Your task to perform on an android device: turn notification dots off Image 0: 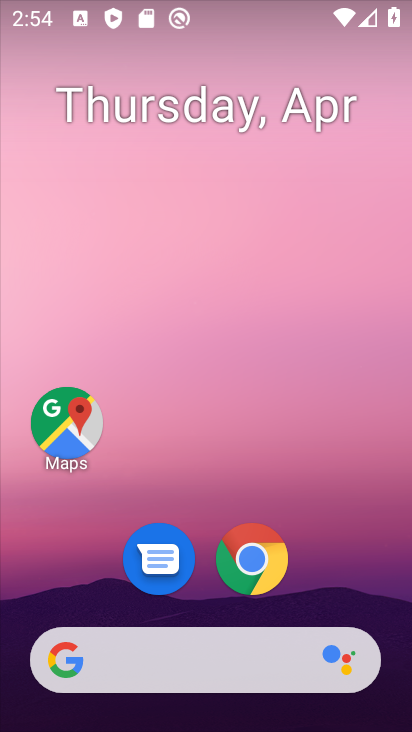
Step 0: drag from (266, 618) to (287, 130)
Your task to perform on an android device: turn notification dots off Image 1: 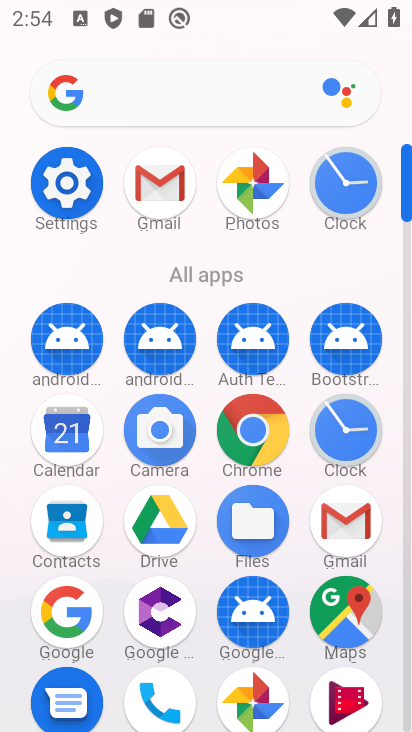
Step 1: click (69, 190)
Your task to perform on an android device: turn notification dots off Image 2: 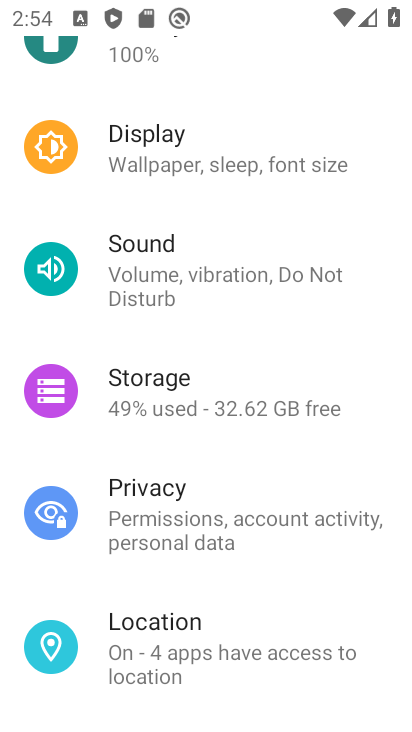
Step 2: drag from (261, 222) to (262, 653)
Your task to perform on an android device: turn notification dots off Image 3: 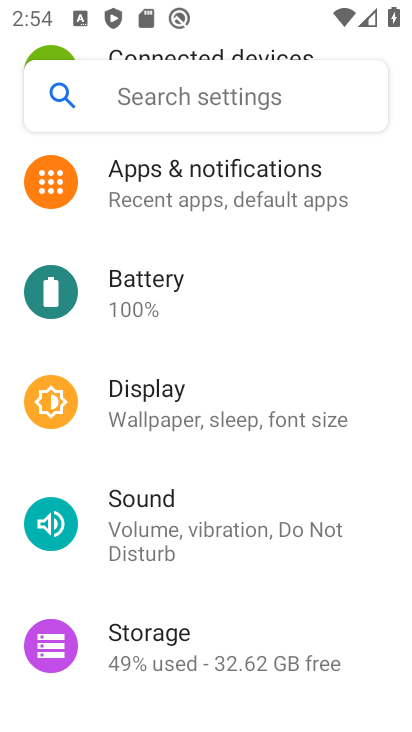
Step 3: click (179, 205)
Your task to perform on an android device: turn notification dots off Image 4: 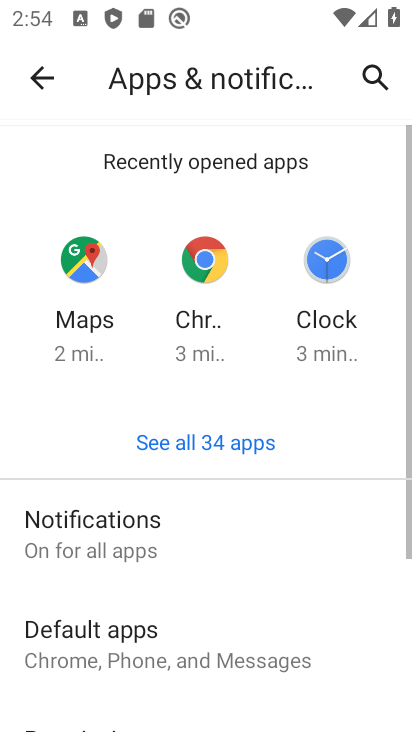
Step 4: click (136, 536)
Your task to perform on an android device: turn notification dots off Image 5: 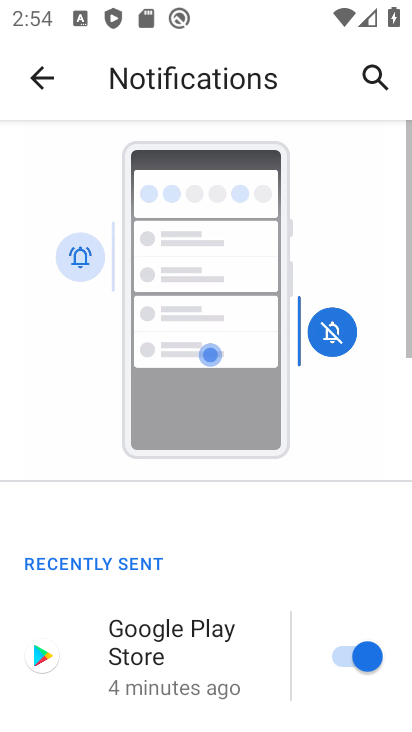
Step 5: drag from (255, 543) to (239, 2)
Your task to perform on an android device: turn notification dots off Image 6: 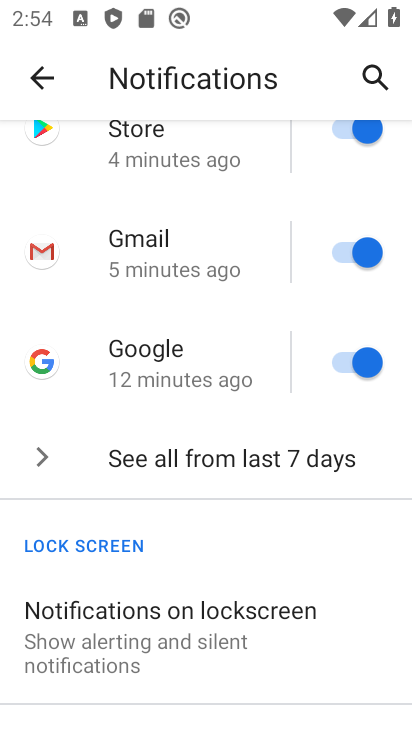
Step 6: drag from (188, 484) to (191, 128)
Your task to perform on an android device: turn notification dots off Image 7: 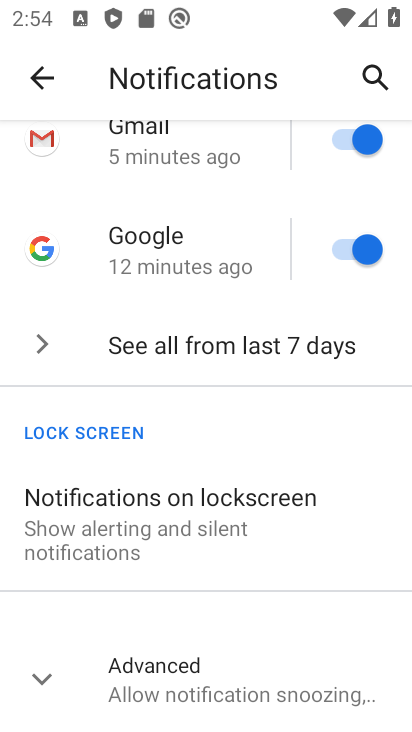
Step 7: click (192, 667)
Your task to perform on an android device: turn notification dots off Image 8: 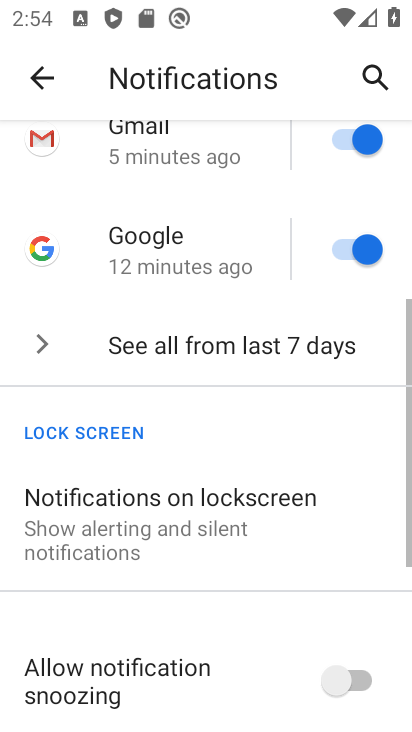
Step 8: drag from (192, 667) to (208, 182)
Your task to perform on an android device: turn notification dots off Image 9: 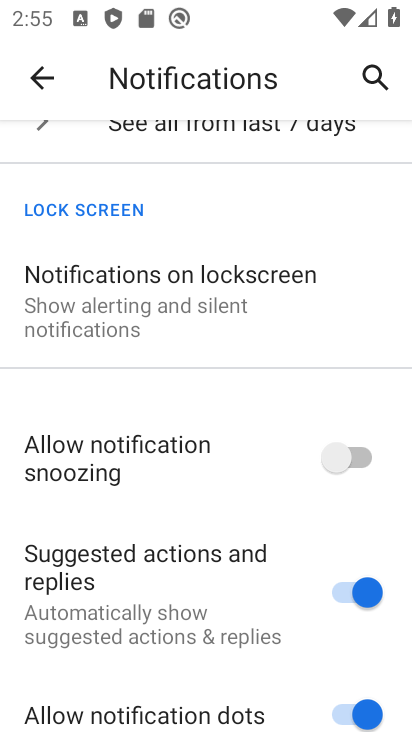
Step 9: click (374, 708)
Your task to perform on an android device: turn notification dots off Image 10: 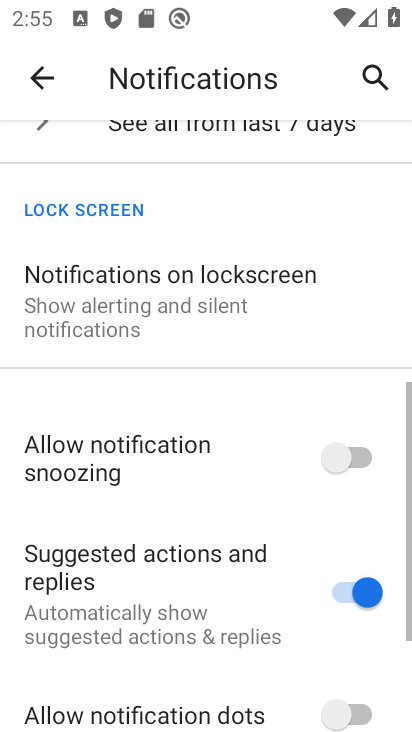
Step 10: task complete